Your task to perform on an android device: change timer sound Image 0: 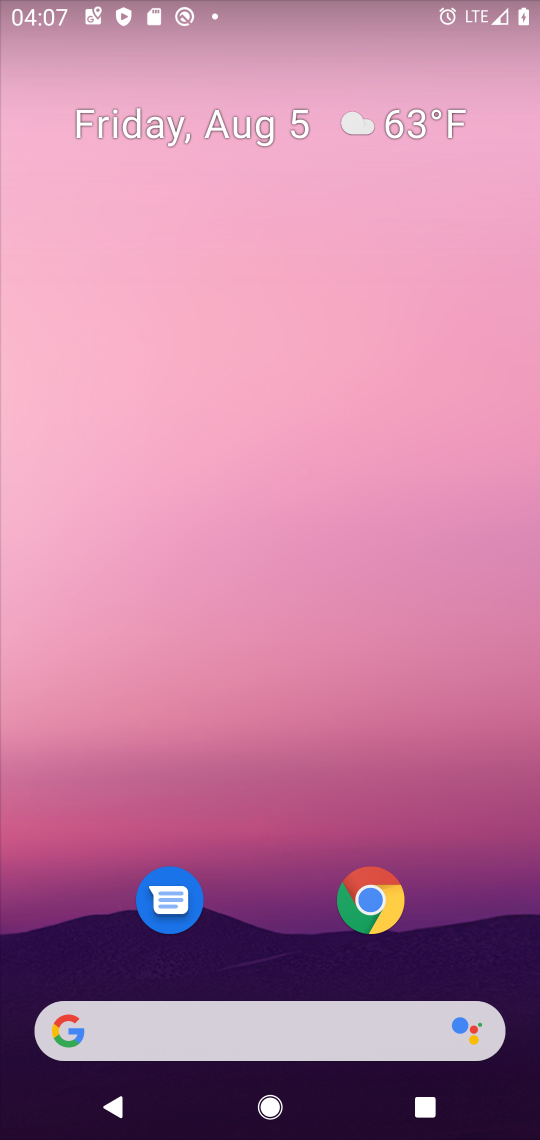
Step 0: drag from (247, 920) to (285, 80)
Your task to perform on an android device: change timer sound Image 1: 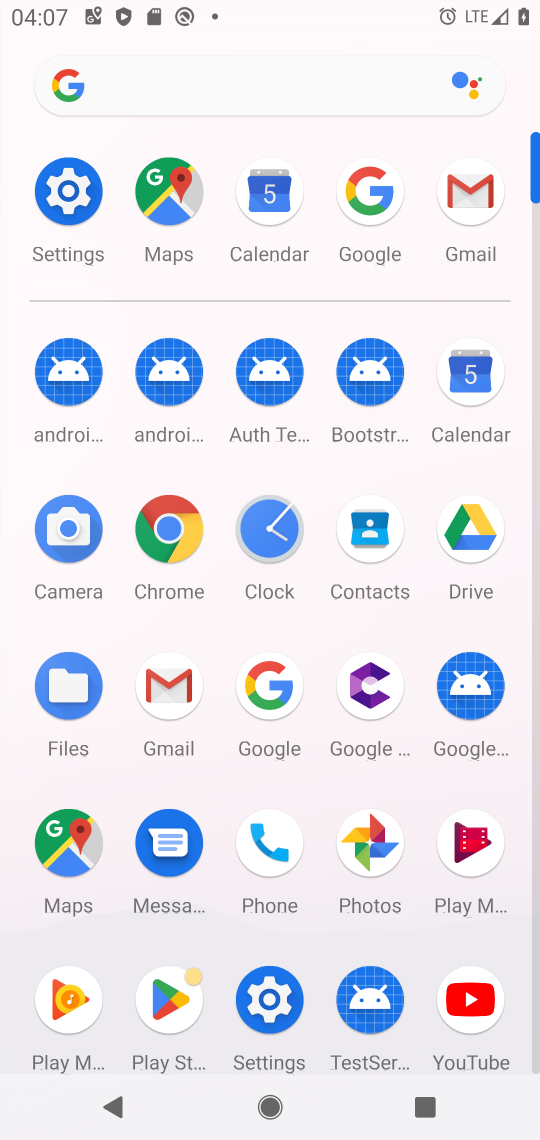
Step 1: click (271, 544)
Your task to perform on an android device: change timer sound Image 2: 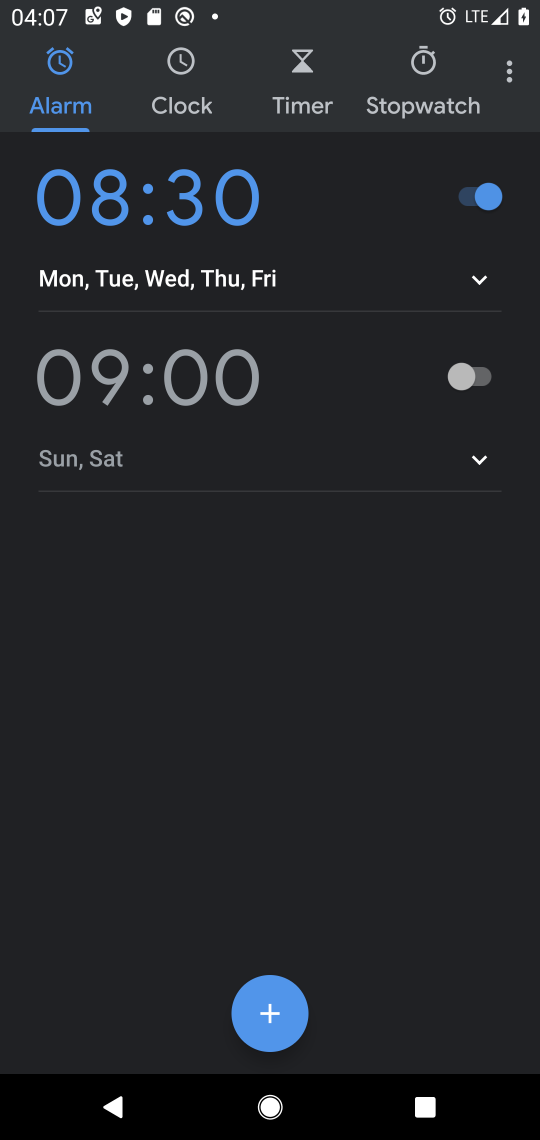
Step 2: click (506, 71)
Your task to perform on an android device: change timer sound Image 3: 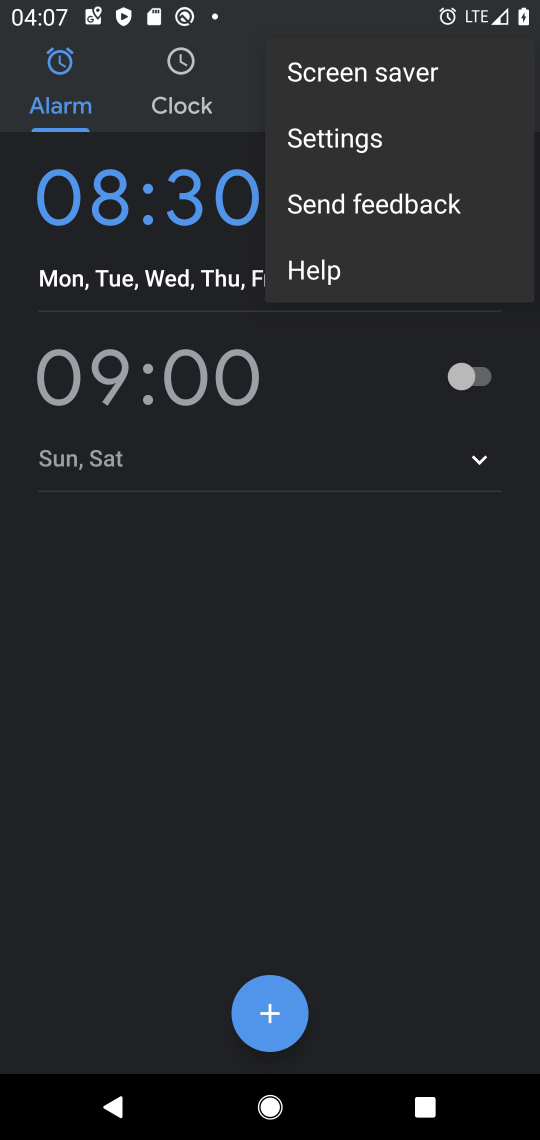
Step 3: click (374, 148)
Your task to perform on an android device: change timer sound Image 4: 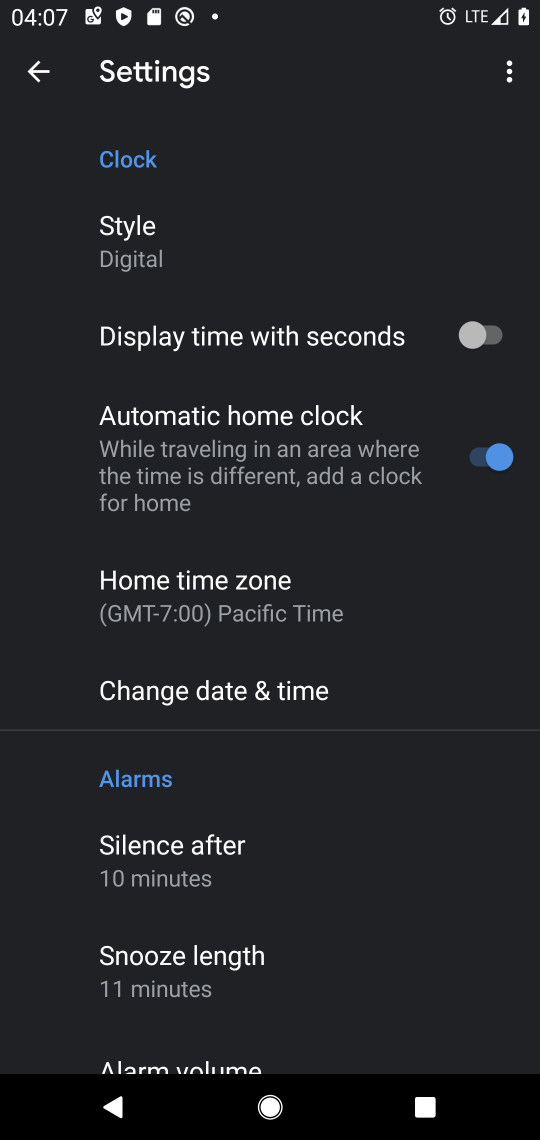
Step 4: drag from (196, 1026) to (299, 99)
Your task to perform on an android device: change timer sound Image 5: 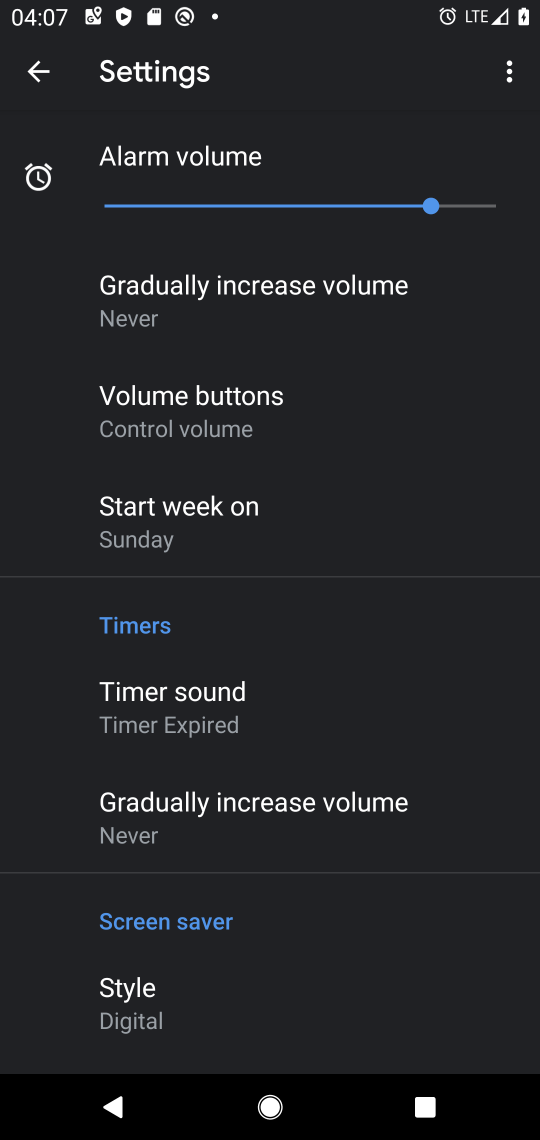
Step 5: click (185, 719)
Your task to perform on an android device: change timer sound Image 6: 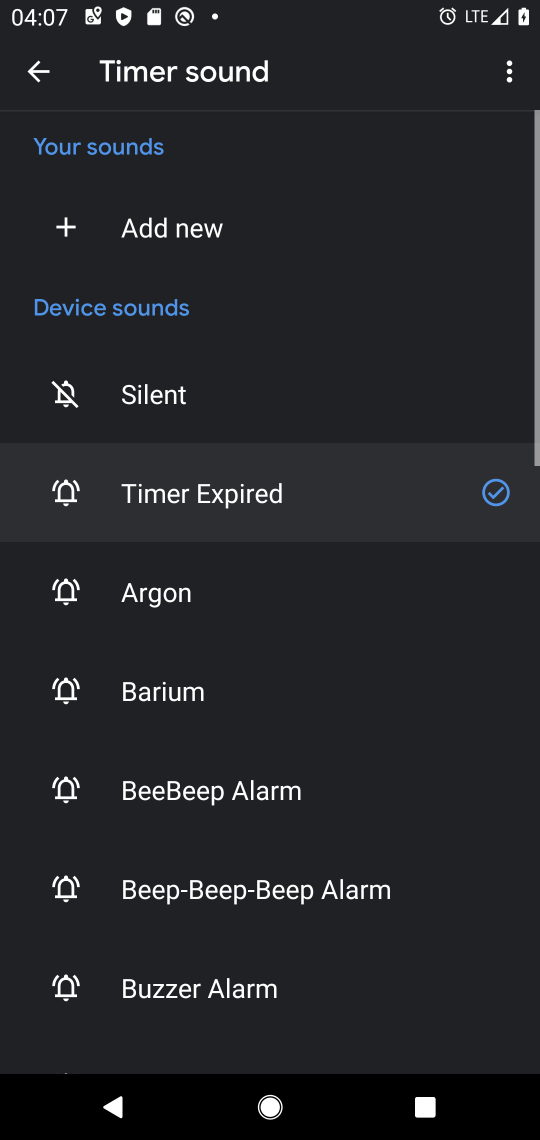
Step 6: click (164, 599)
Your task to perform on an android device: change timer sound Image 7: 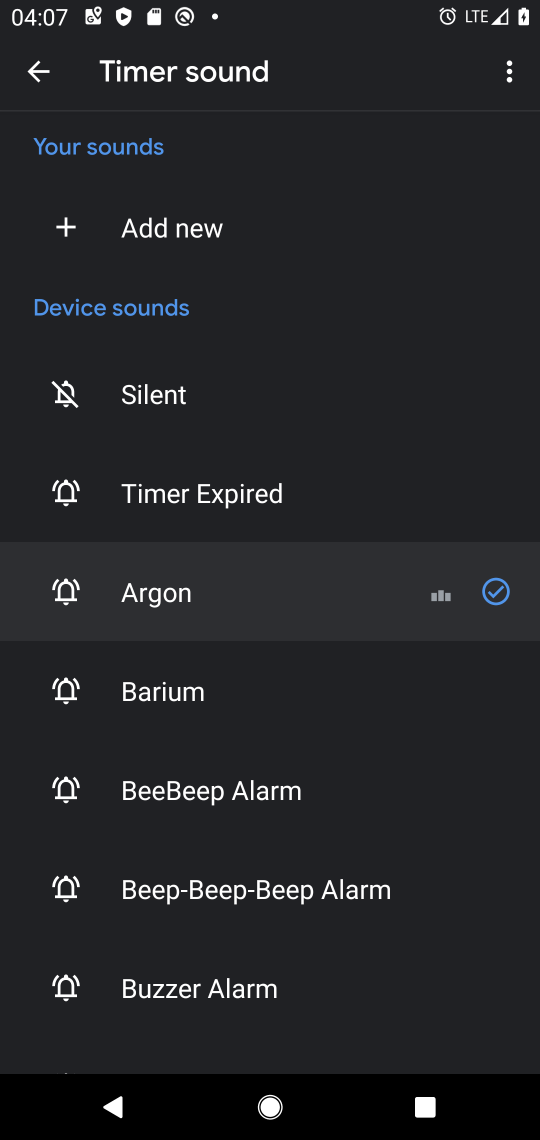
Step 7: task complete